Your task to perform on an android device: Check the news Image 0: 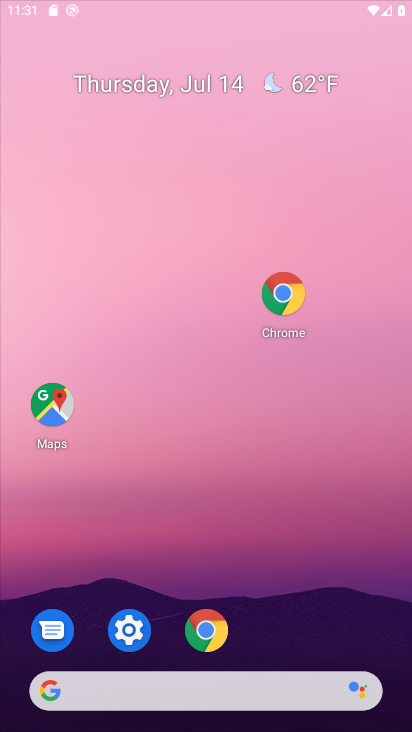
Step 0: click (259, 180)
Your task to perform on an android device: Check the news Image 1: 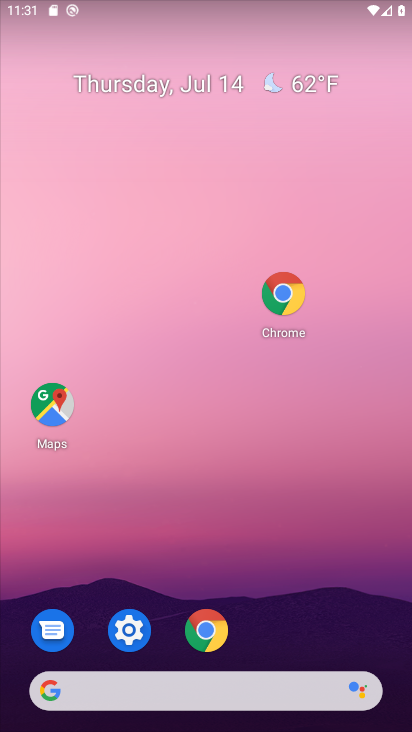
Step 1: drag from (266, 677) to (227, 150)
Your task to perform on an android device: Check the news Image 2: 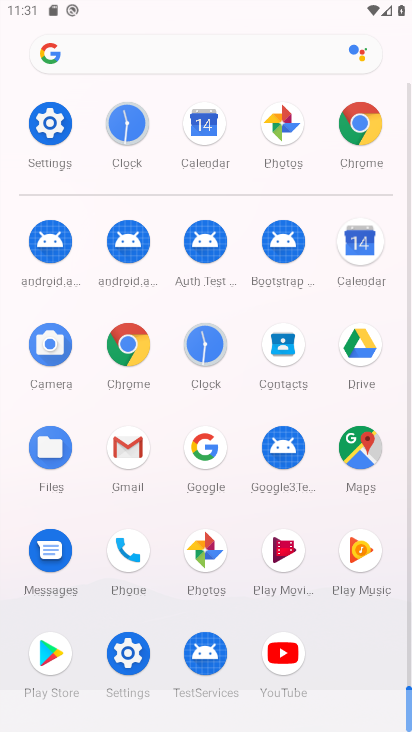
Step 2: click (357, 130)
Your task to perform on an android device: Check the news Image 3: 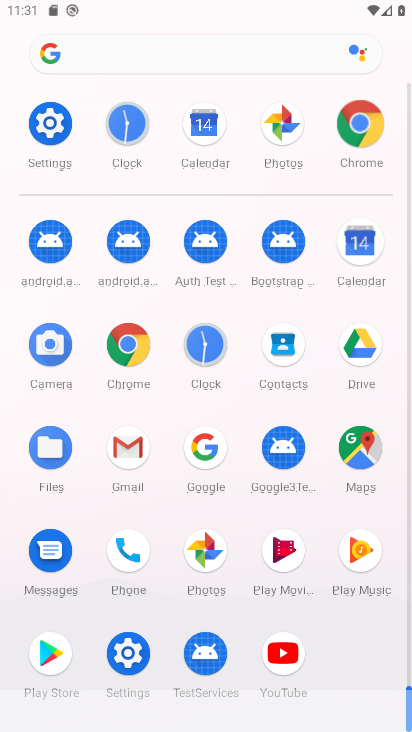
Step 3: click (358, 129)
Your task to perform on an android device: Check the news Image 4: 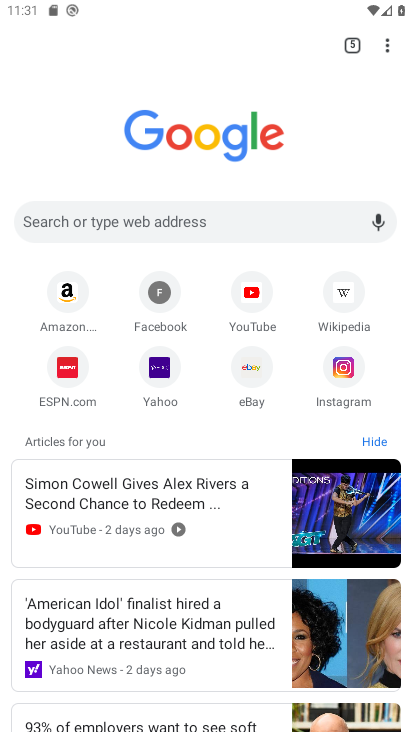
Step 4: task complete